Your task to perform on an android device: Open calendar and show me the first week of next month Image 0: 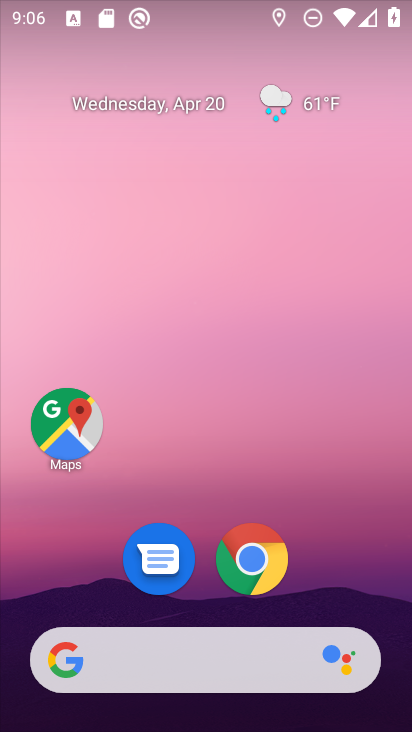
Step 0: drag from (364, 595) to (302, 183)
Your task to perform on an android device: Open calendar and show me the first week of next month Image 1: 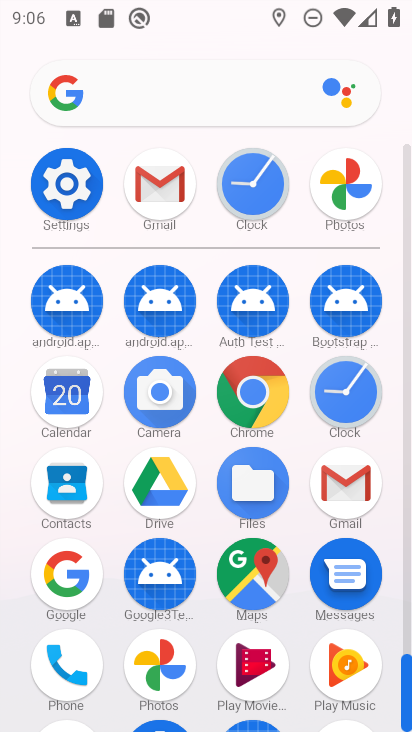
Step 1: click (69, 394)
Your task to perform on an android device: Open calendar and show me the first week of next month Image 2: 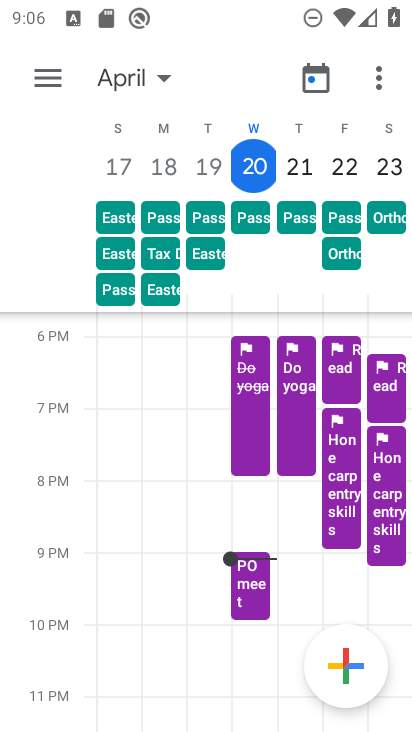
Step 2: click (173, 77)
Your task to perform on an android device: Open calendar and show me the first week of next month Image 3: 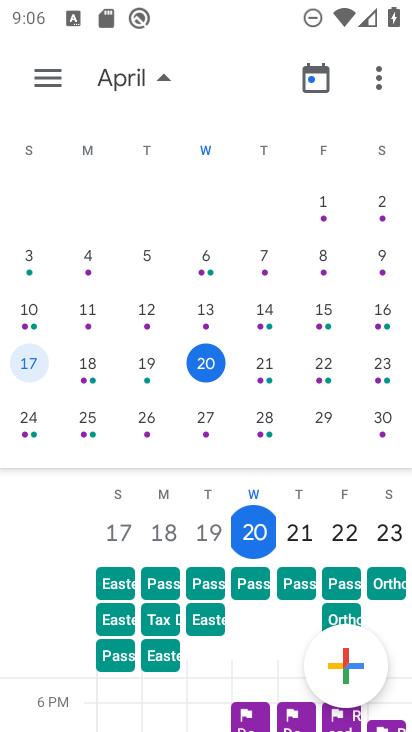
Step 3: task complete